Your task to perform on an android device: Search for the best selling book on Amazon. Image 0: 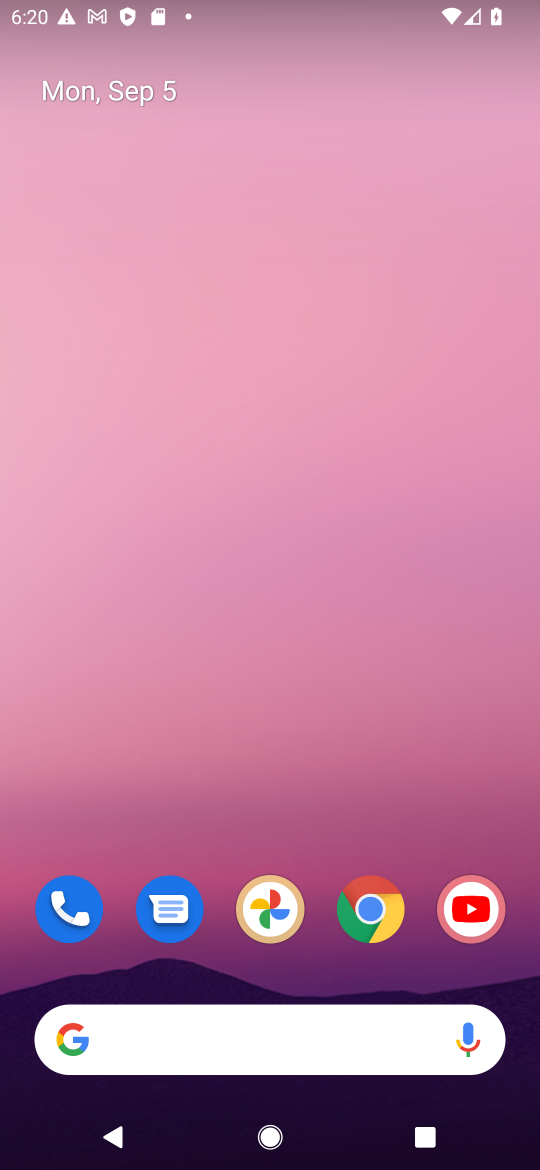
Step 0: drag from (242, 676) to (242, 272)
Your task to perform on an android device: Search for the best selling book on Amazon. Image 1: 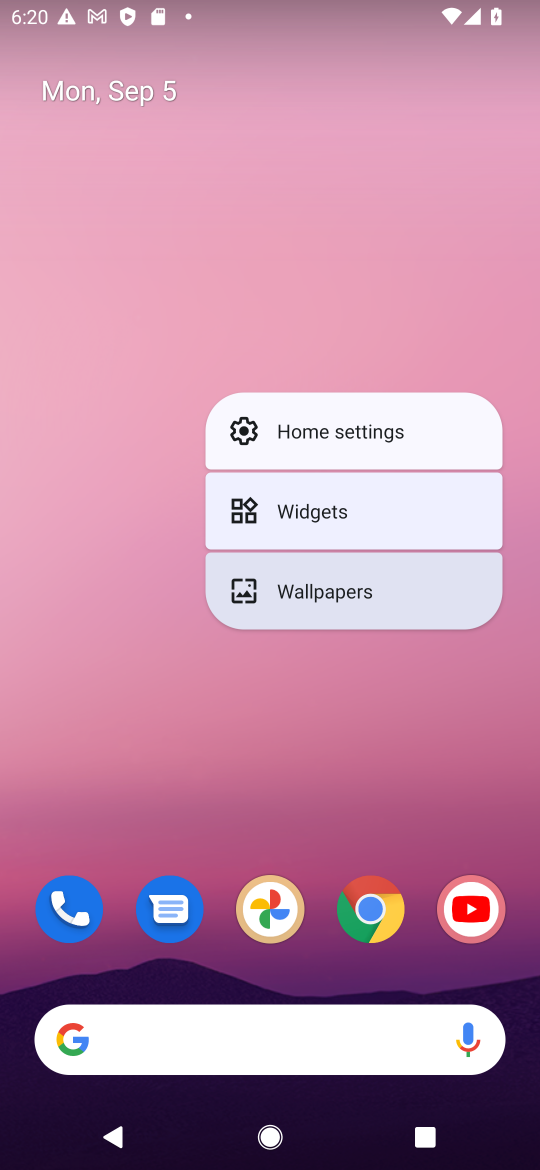
Step 1: click (200, 790)
Your task to perform on an android device: Search for the best selling book on Amazon. Image 2: 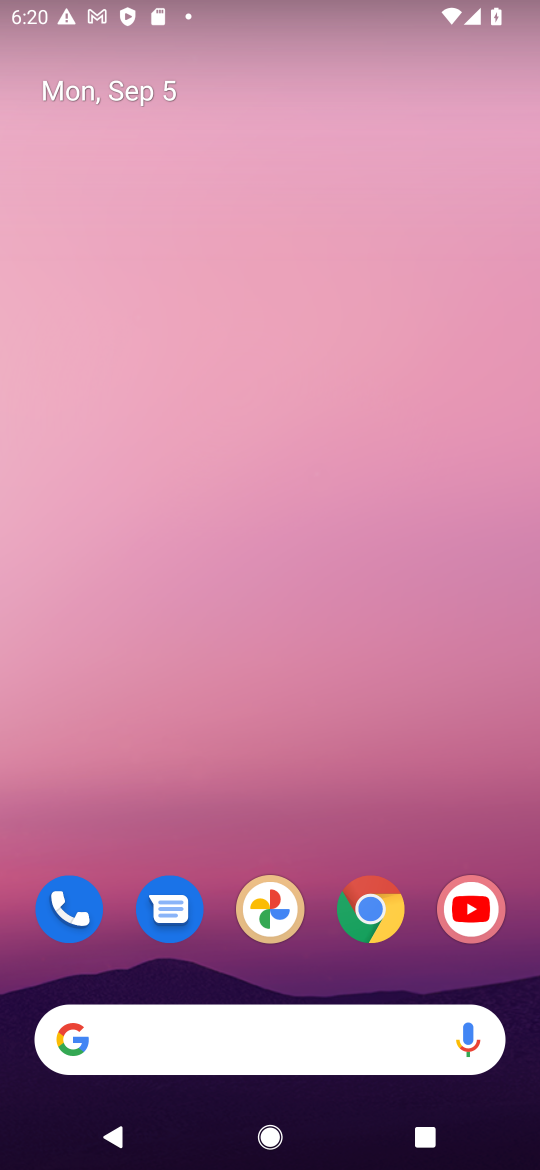
Step 2: drag from (203, 673) to (172, 349)
Your task to perform on an android device: Search for the best selling book on Amazon. Image 3: 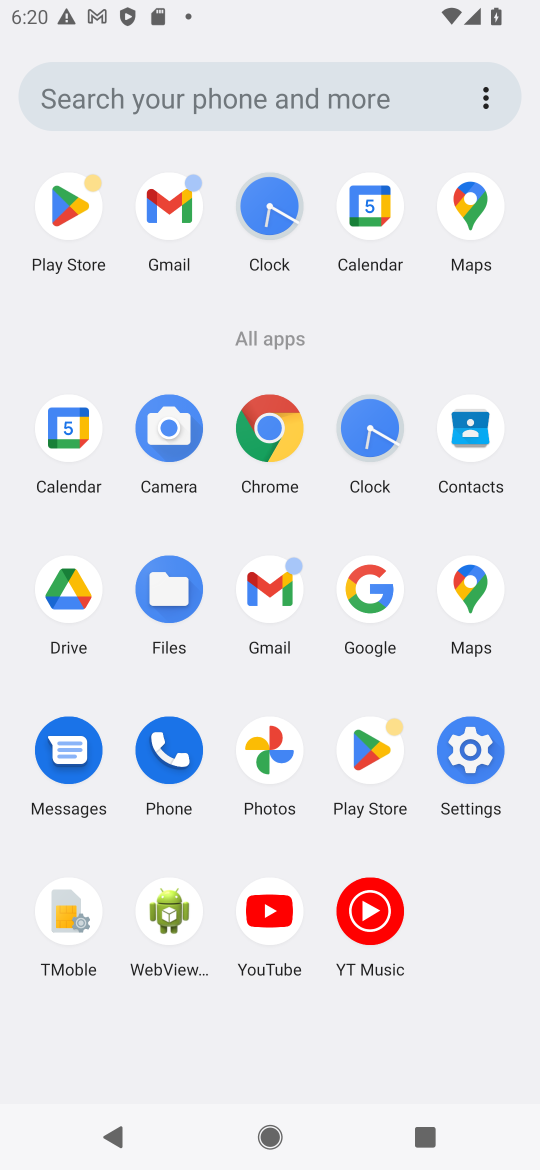
Step 3: click (366, 602)
Your task to perform on an android device: Search for the best selling book on Amazon. Image 4: 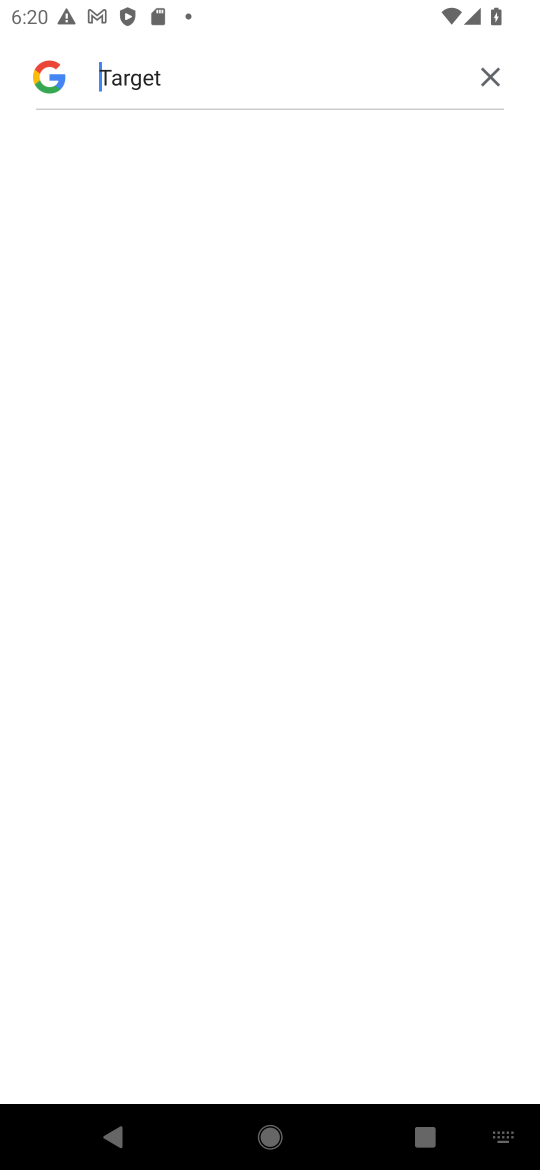
Step 4: click (498, 80)
Your task to perform on an android device: Search for the best selling book on Amazon. Image 5: 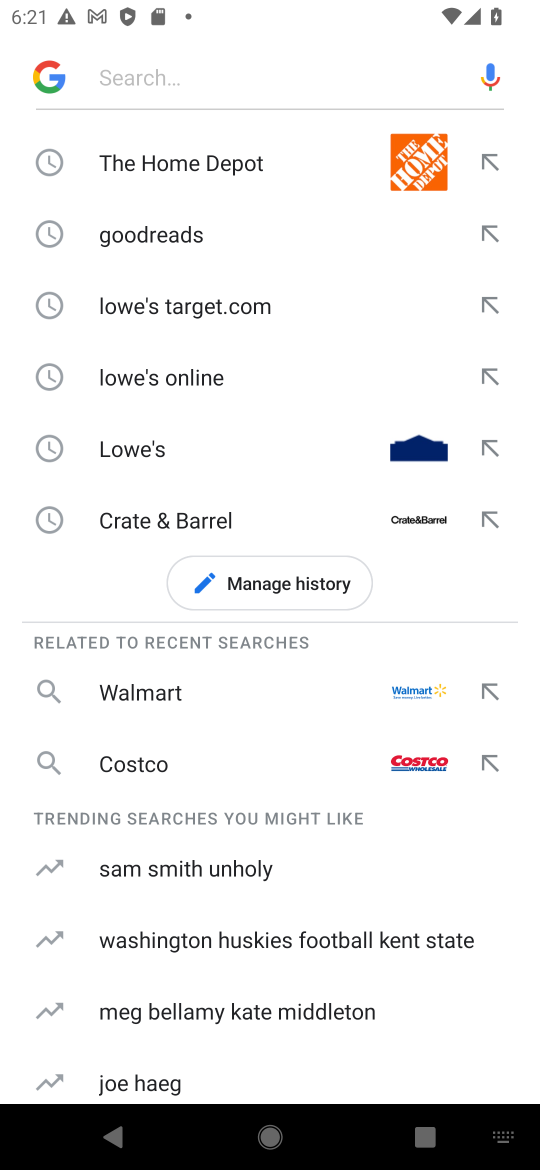
Step 5: type "Amazon"
Your task to perform on an android device: Search for the best selling book on Amazon. Image 6: 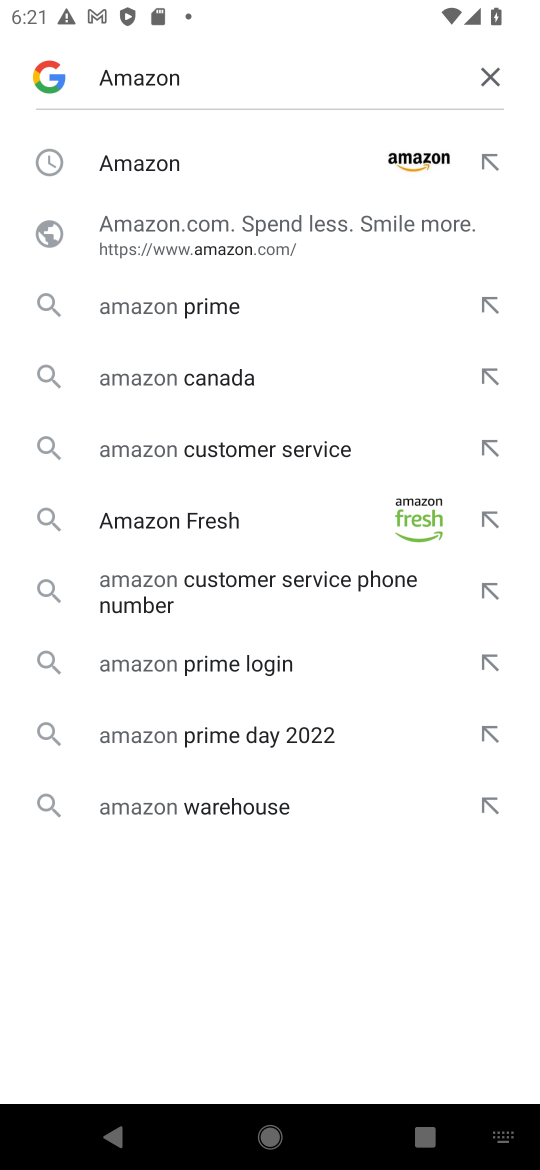
Step 6: click (198, 168)
Your task to perform on an android device: Search for the best selling book on Amazon. Image 7: 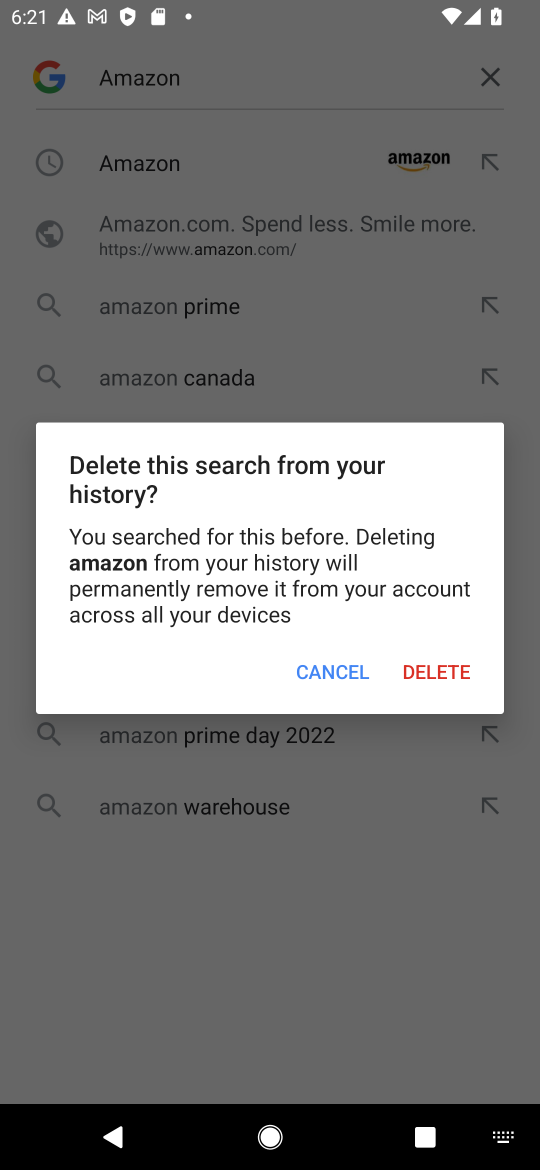
Step 7: click (334, 672)
Your task to perform on an android device: Search for the best selling book on Amazon. Image 8: 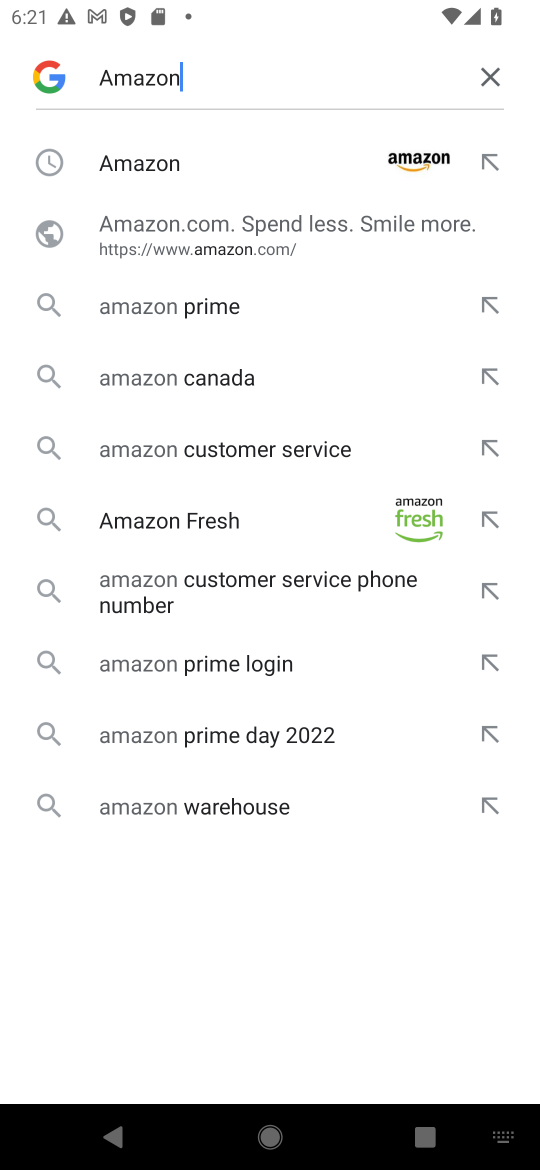
Step 8: click (416, 156)
Your task to perform on an android device: Search for the best selling book on Amazon. Image 9: 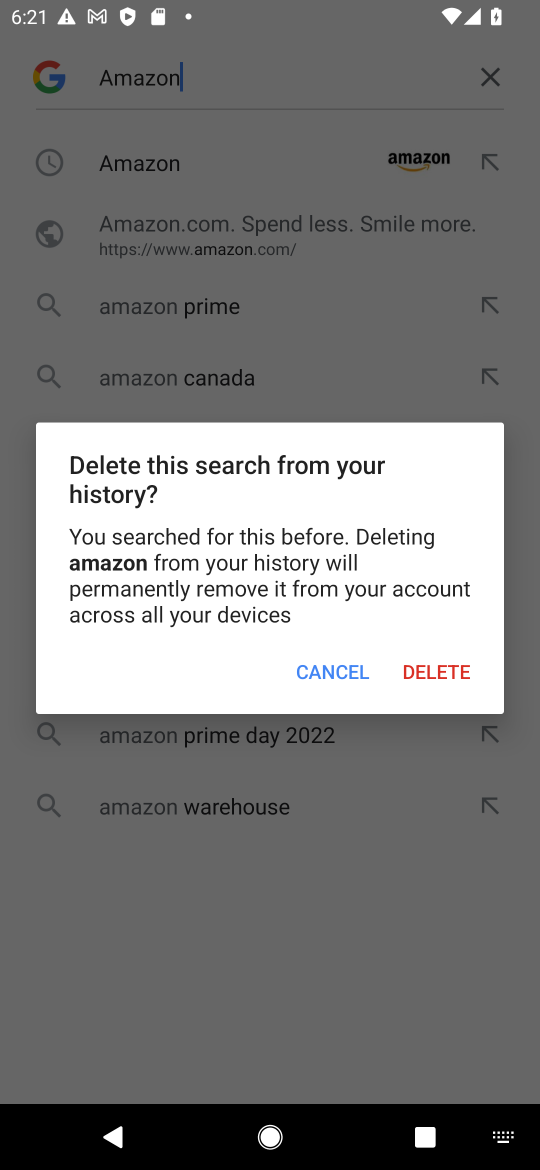
Step 9: click (329, 677)
Your task to perform on an android device: Search for the best selling book on Amazon. Image 10: 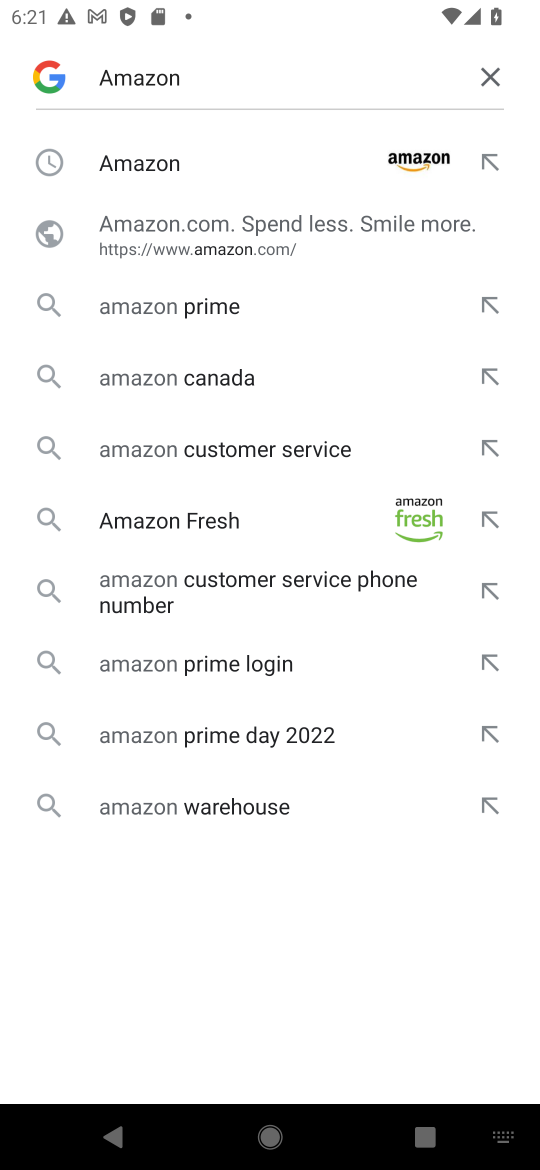
Step 10: click (492, 159)
Your task to perform on an android device: Search for the best selling book on Amazon. Image 11: 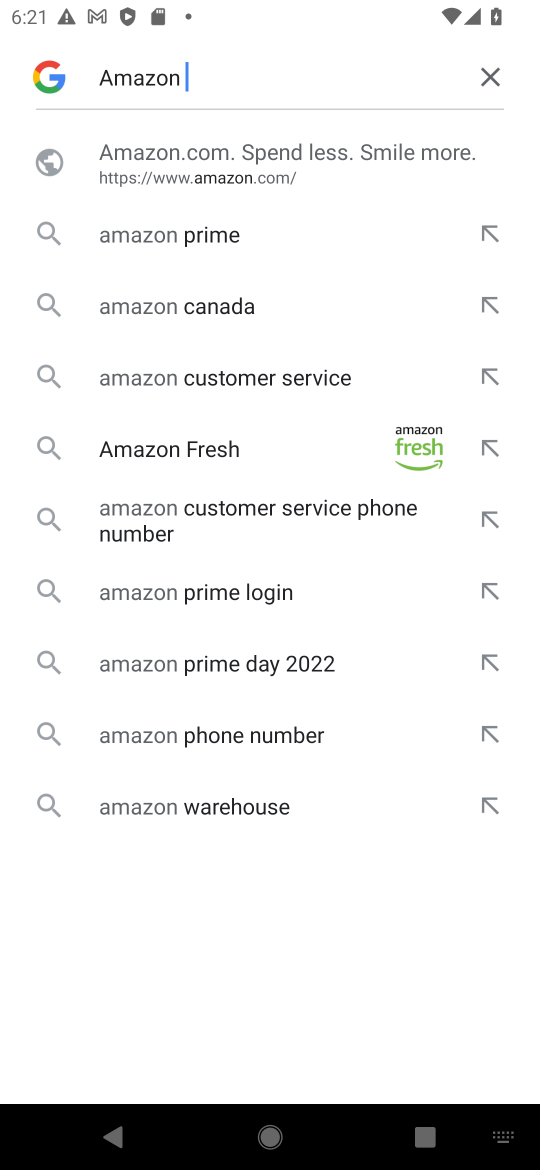
Step 11: click (261, 152)
Your task to perform on an android device: Search for the best selling book on Amazon. Image 12: 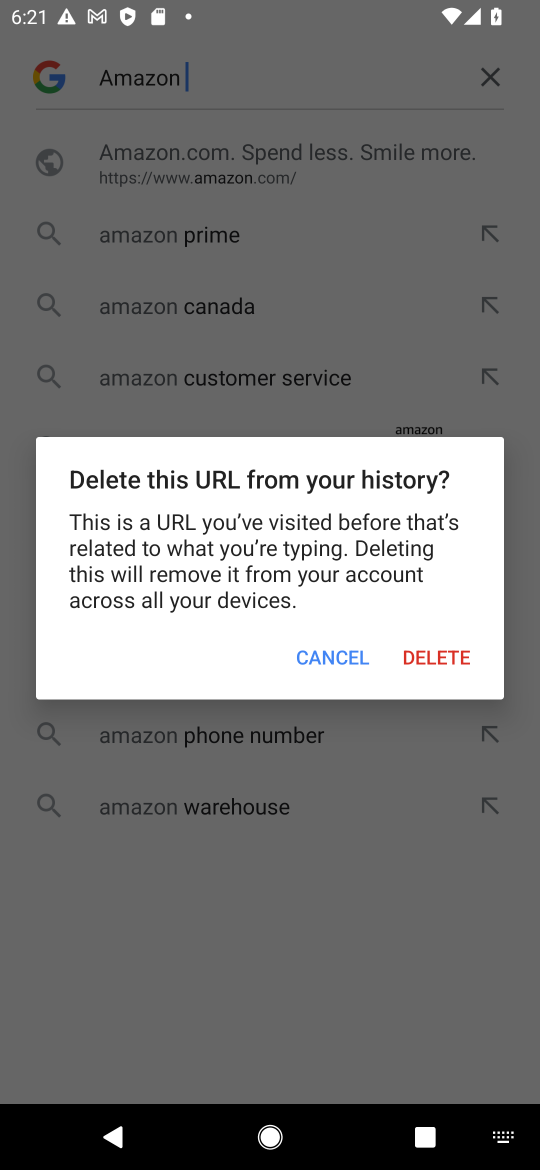
Step 12: click (317, 648)
Your task to perform on an android device: Search for the best selling book on Amazon. Image 13: 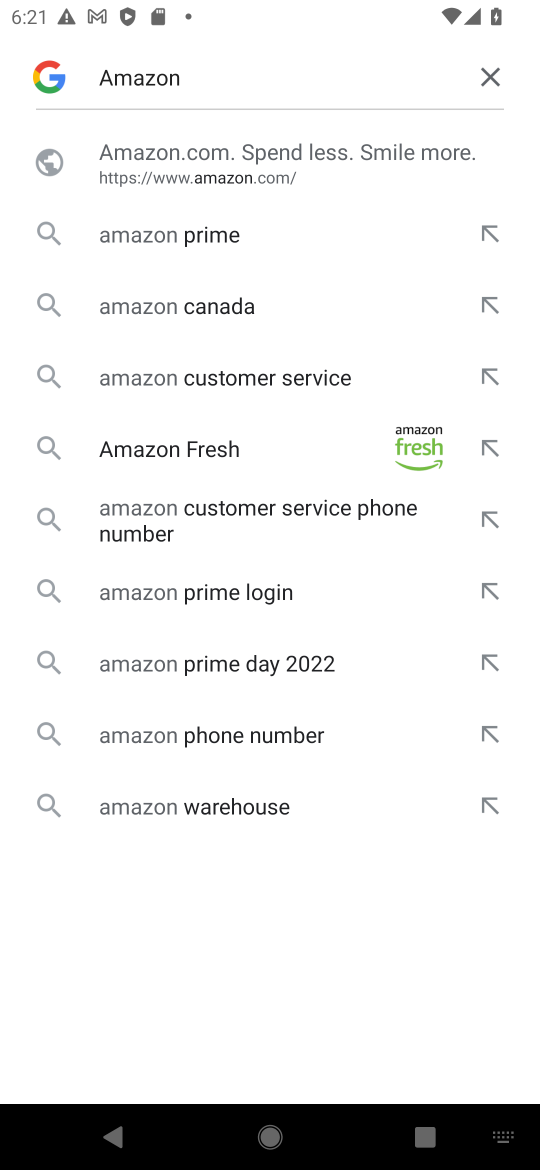
Step 13: click (161, 175)
Your task to perform on an android device: Search for the best selling book on Amazon. Image 14: 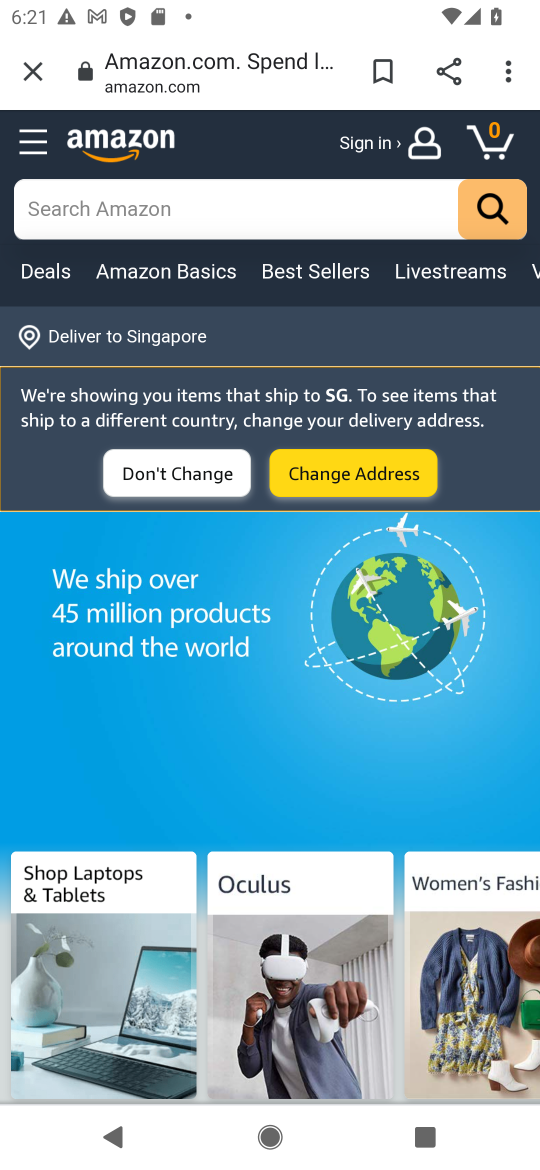
Step 14: click (336, 209)
Your task to perform on an android device: Search for the best selling book on Amazon. Image 15: 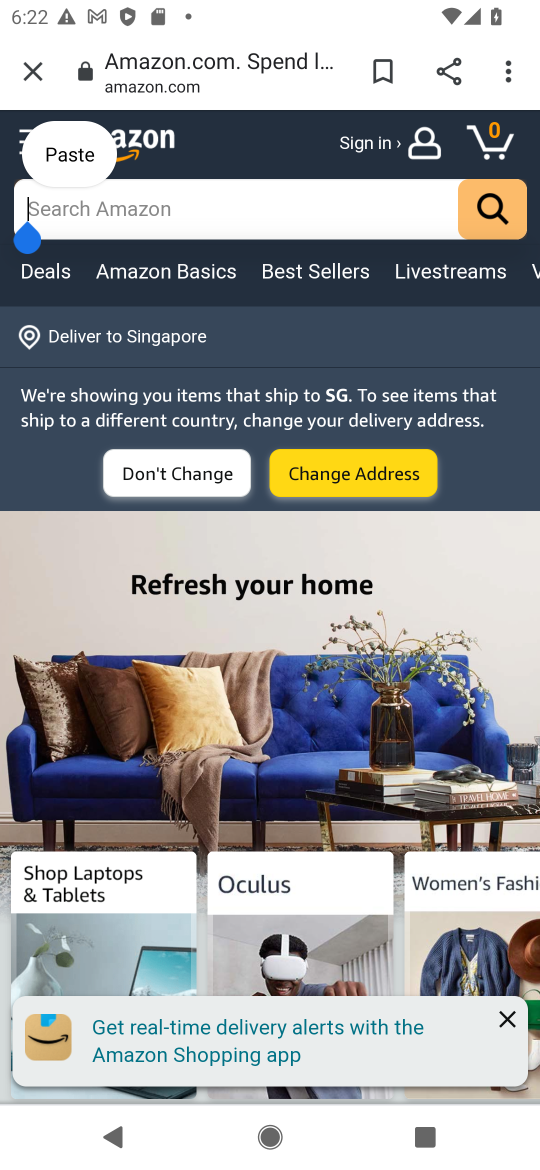
Step 15: type "best selling book"
Your task to perform on an android device: Search for the best selling book on Amazon. Image 16: 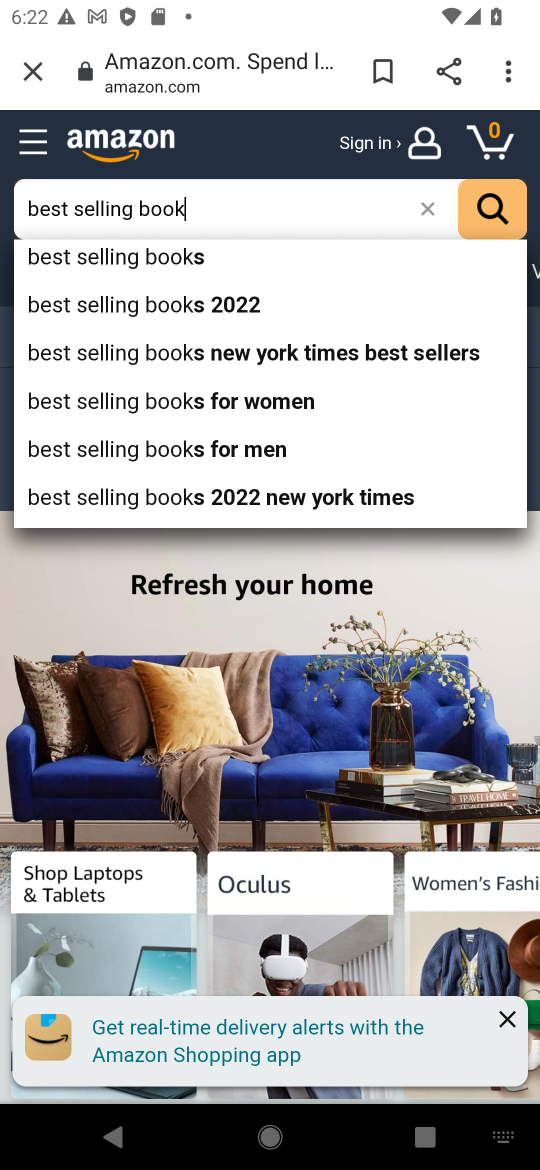
Step 16: click (197, 259)
Your task to perform on an android device: Search for the best selling book on Amazon. Image 17: 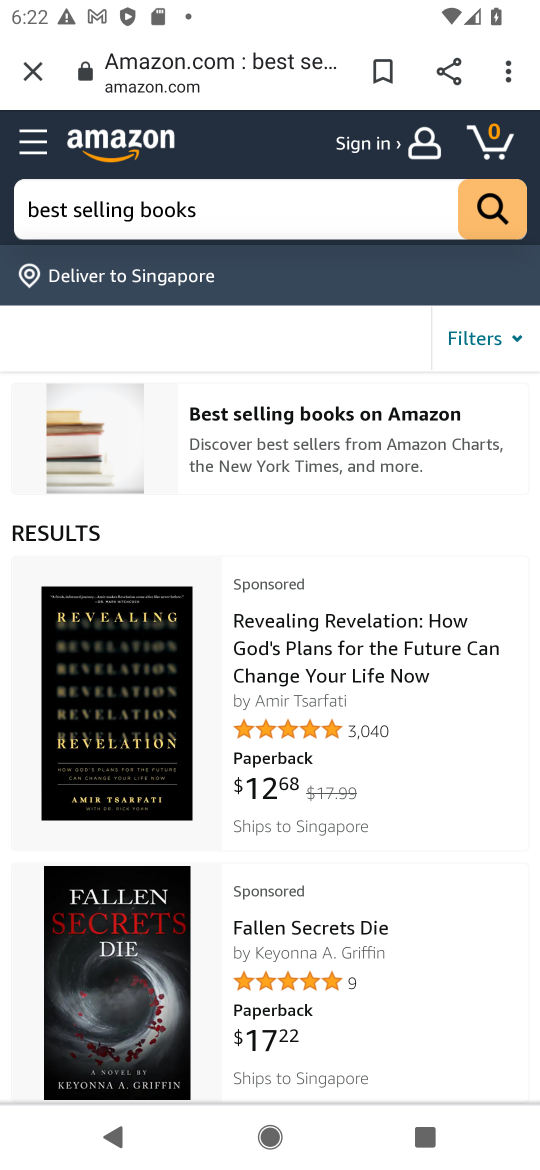
Step 17: task complete